Your task to perform on an android device: Go to location settings Image 0: 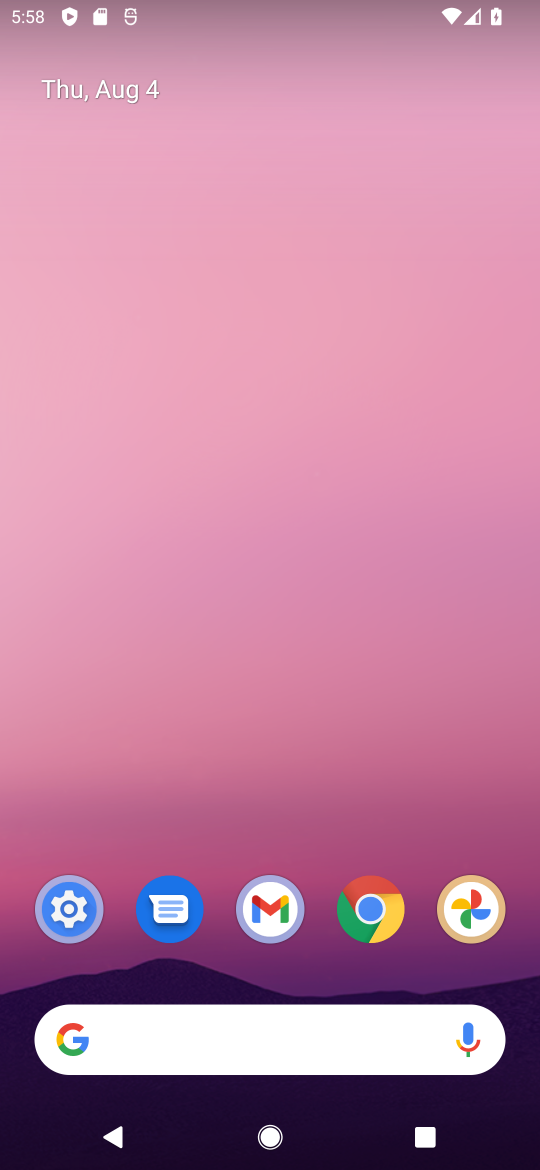
Step 0: drag from (167, 942) to (336, 83)
Your task to perform on an android device: Go to location settings Image 1: 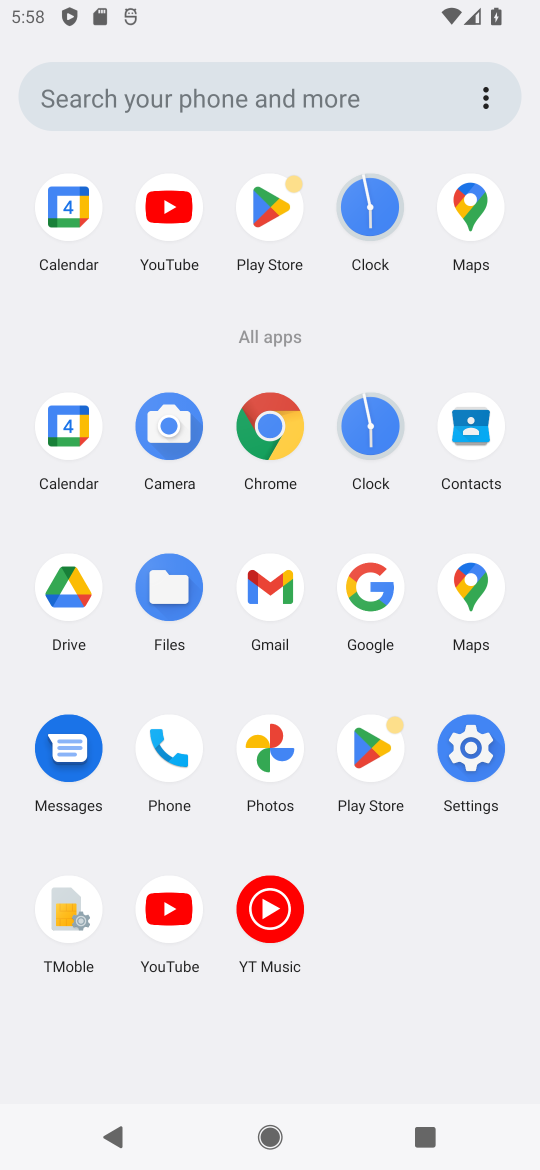
Step 1: click (451, 752)
Your task to perform on an android device: Go to location settings Image 2: 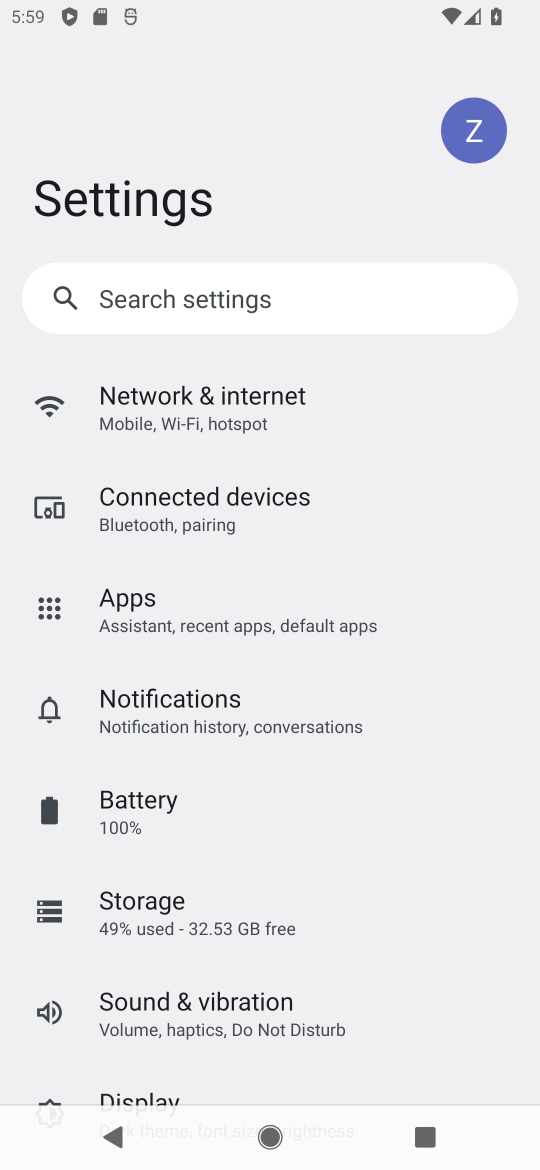
Step 2: drag from (195, 865) to (267, 334)
Your task to perform on an android device: Go to location settings Image 3: 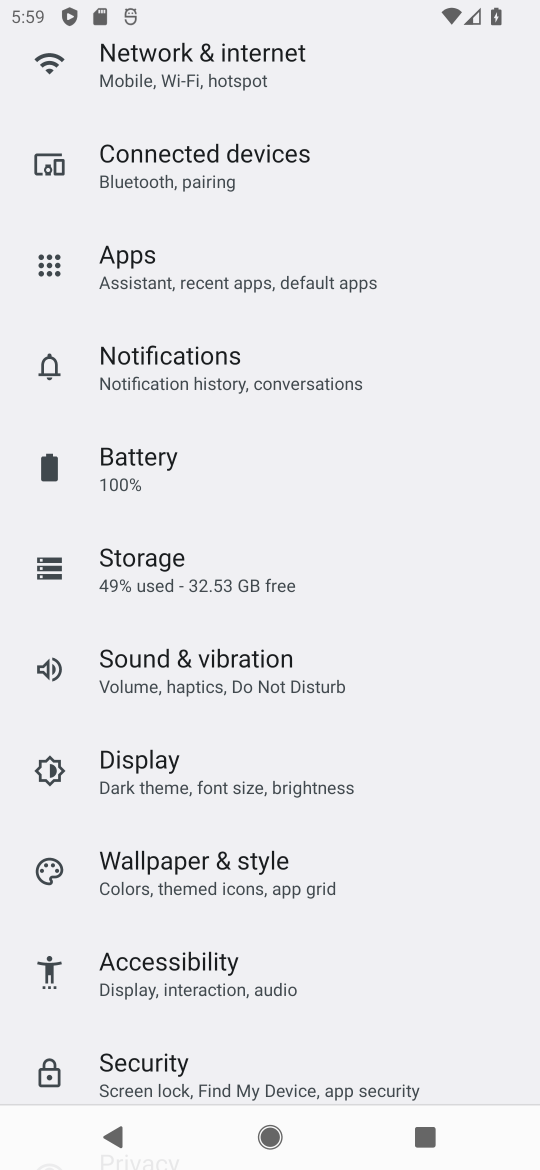
Step 3: drag from (185, 996) to (318, 285)
Your task to perform on an android device: Go to location settings Image 4: 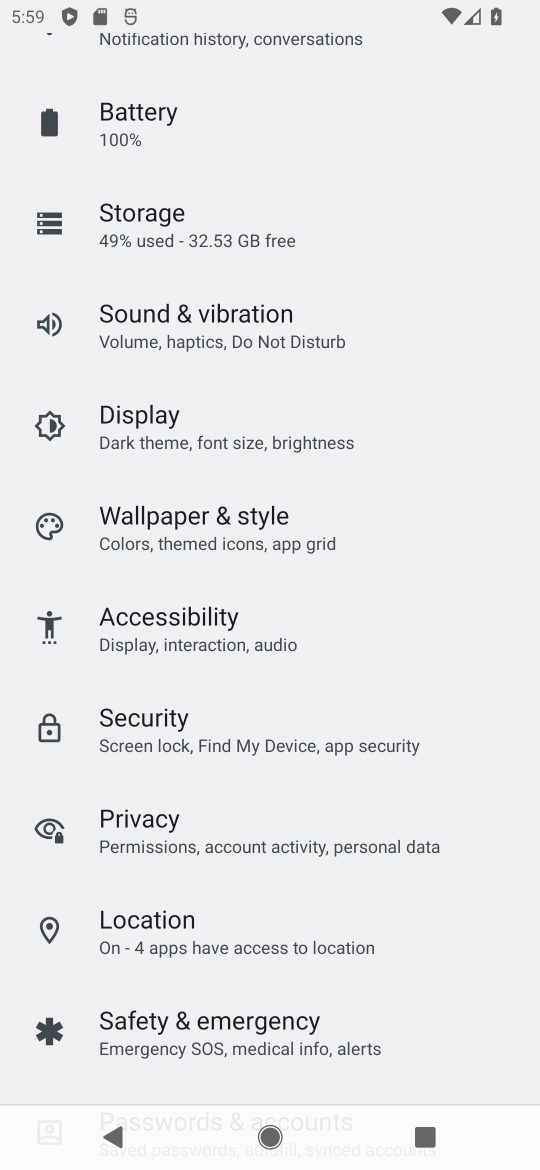
Step 4: click (121, 940)
Your task to perform on an android device: Go to location settings Image 5: 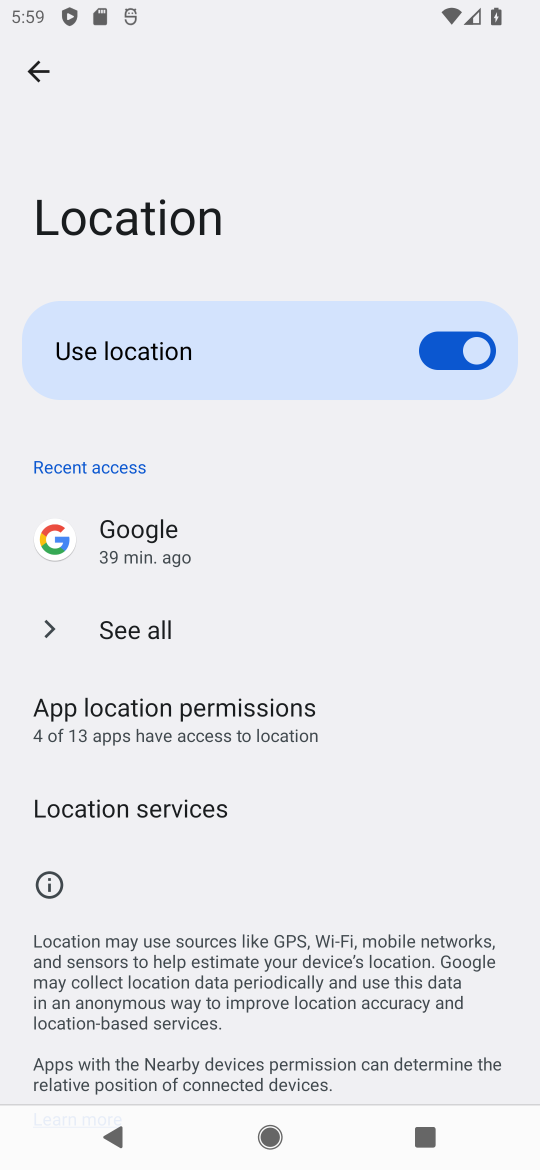
Step 5: task complete